Your task to perform on an android device: turn vacation reply on in the gmail app Image 0: 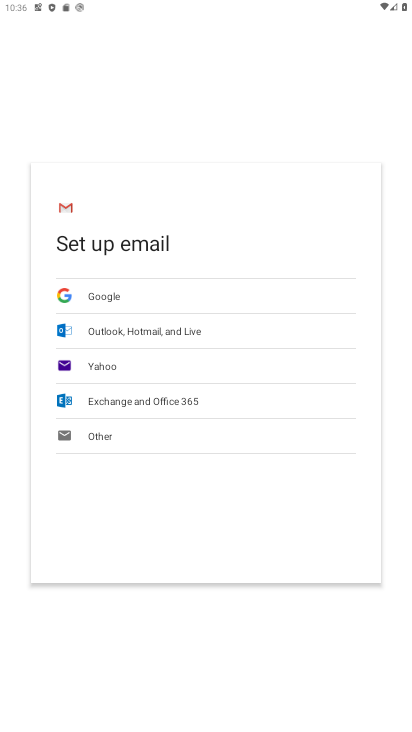
Step 0: press home button
Your task to perform on an android device: turn vacation reply on in the gmail app Image 1: 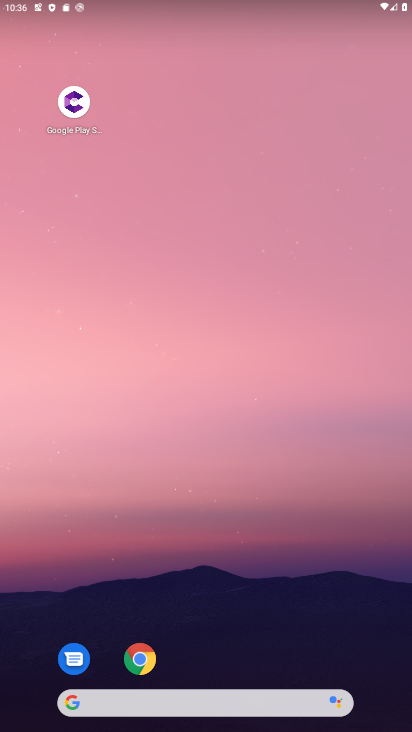
Step 1: drag from (193, 707) to (342, 71)
Your task to perform on an android device: turn vacation reply on in the gmail app Image 2: 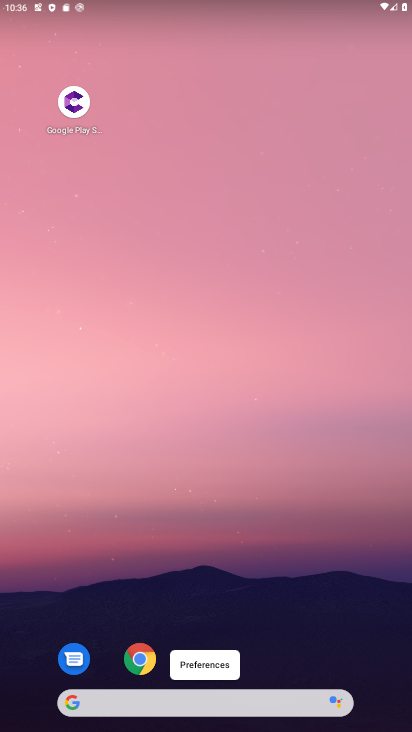
Step 2: drag from (193, 703) to (410, 21)
Your task to perform on an android device: turn vacation reply on in the gmail app Image 3: 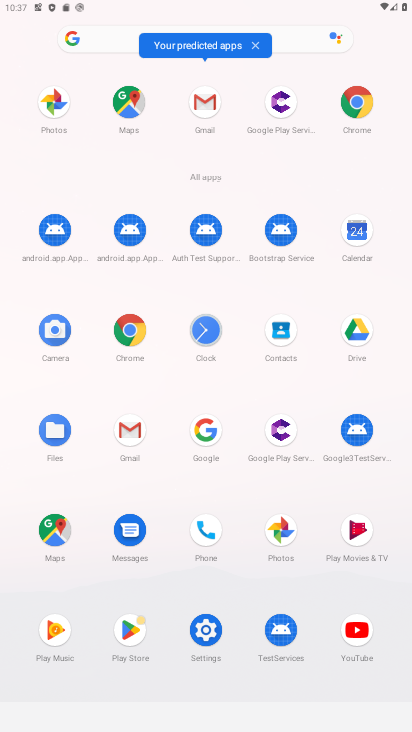
Step 3: click (204, 103)
Your task to perform on an android device: turn vacation reply on in the gmail app Image 4: 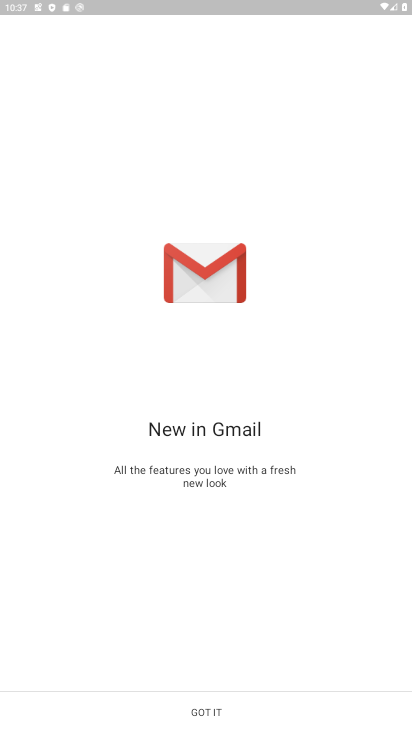
Step 4: click (203, 709)
Your task to perform on an android device: turn vacation reply on in the gmail app Image 5: 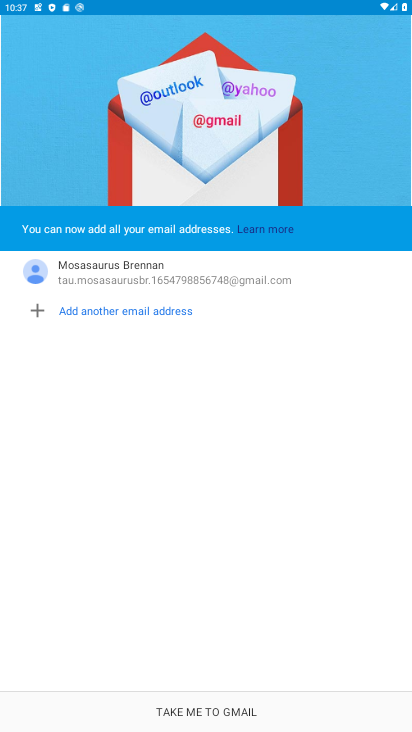
Step 5: click (190, 706)
Your task to perform on an android device: turn vacation reply on in the gmail app Image 6: 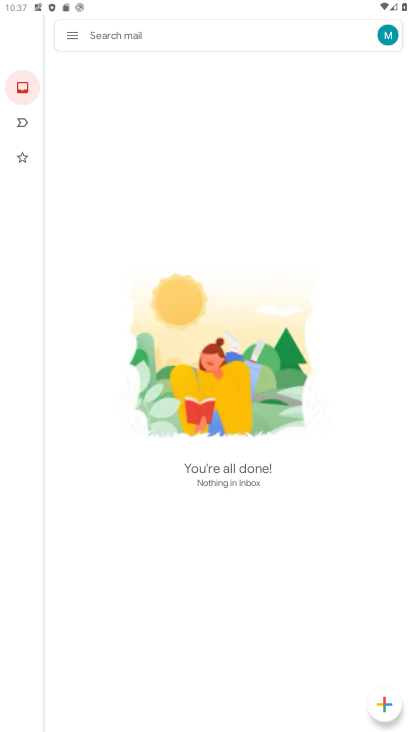
Step 6: click (72, 34)
Your task to perform on an android device: turn vacation reply on in the gmail app Image 7: 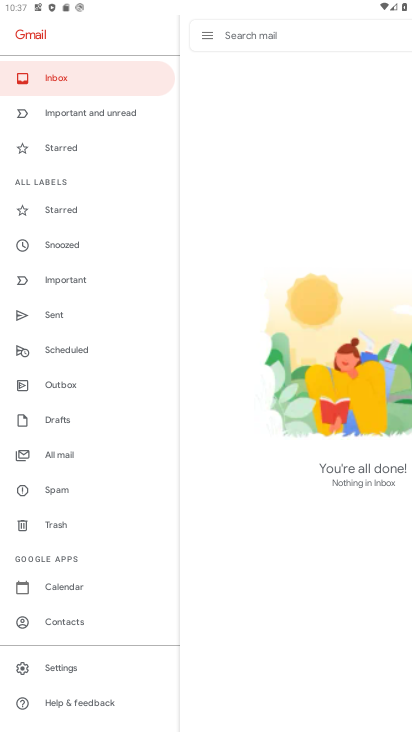
Step 7: click (59, 667)
Your task to perform on an android device: turn vacation reply on in the gmail app Image 8: 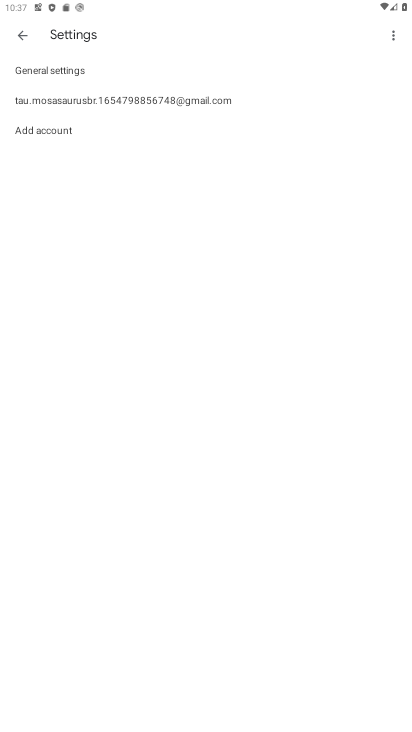
Step 8: click (113, 100)
Your task to perform on an android device: turn vacation reply on in the gmail app Image 9: 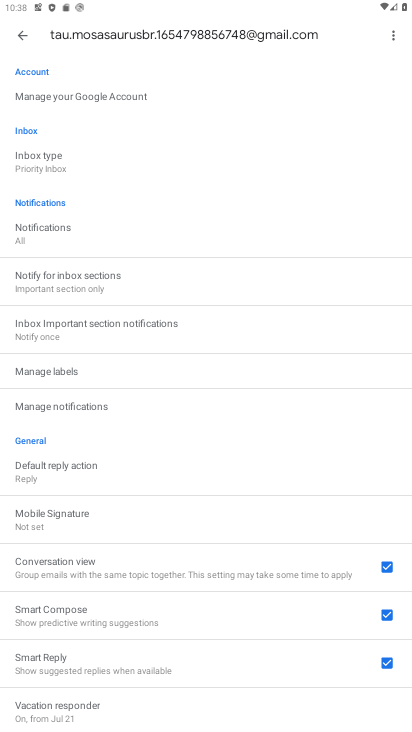
Step 9: drag from (106, 542) to (119, 408)
Your task to perform on an android device: turn vacation reply on in the gmail app Image 10: 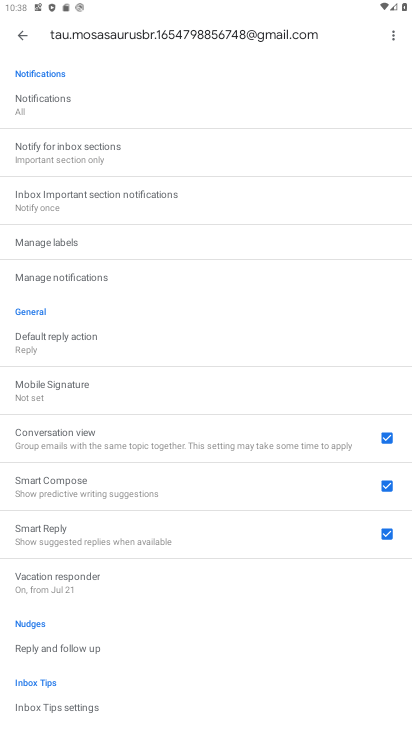
Step 10: click (84, 584)
Your task to perform on an android device: turn vacation reply on in the gmail app Image 11: 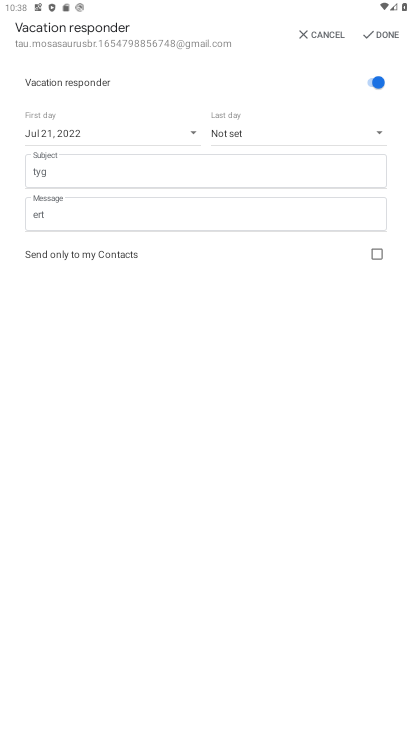
Step 11: task complete